Your task to perform on an android device: choose inbox layout in the gmail app Image 0: 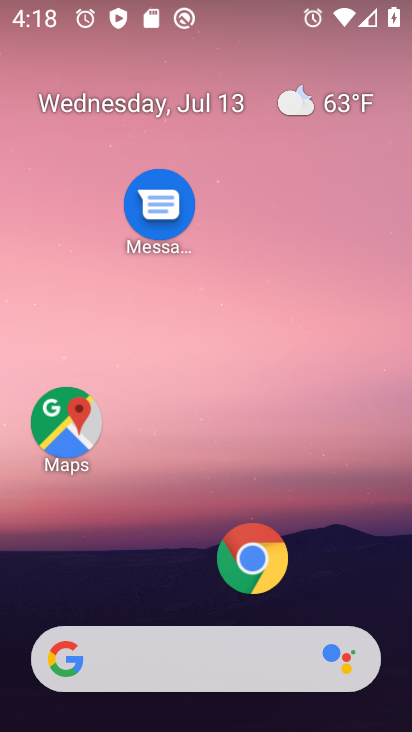
Step 0: drag from (207, 546) to (173, 324)
Your task to perform on an android device: choose inbox layout in the gmail app Image 1: 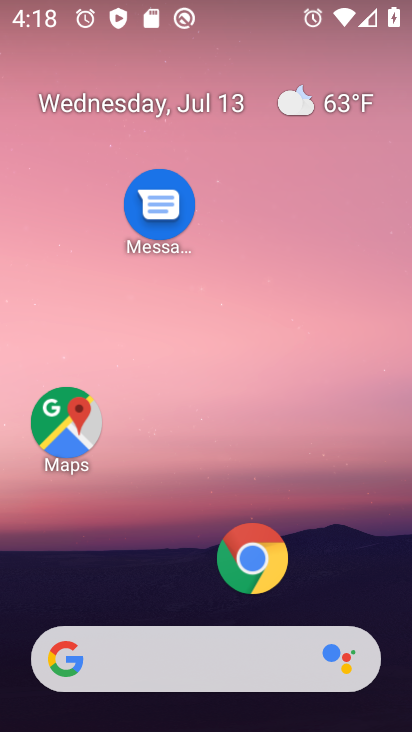
Step 1: drag from (198, 631) to (172, 163)
Your task to perform on an android device: choose inbox layout in the gmail app Image 2: 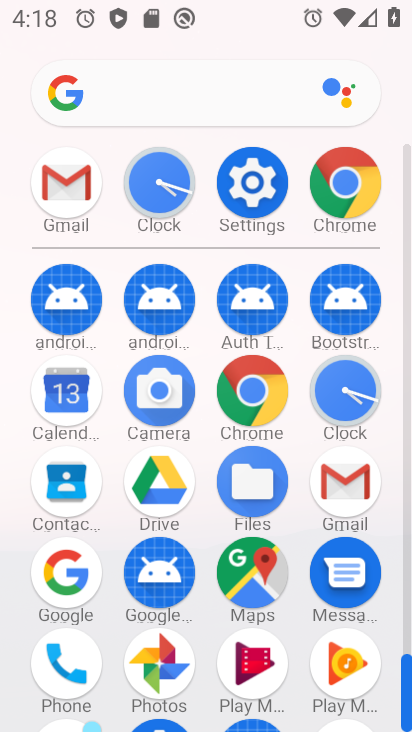
Step 2: click (357, 493)
Your task to perform on an android device: choose inbox layout in the gmail app Image 3: 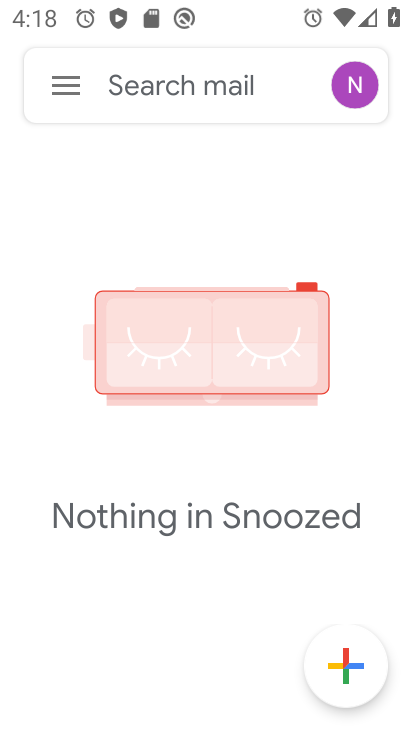
Step 3: click (61, 96)
Your task to perform on an android device: choose inbox layout in the gmail app Image 4: 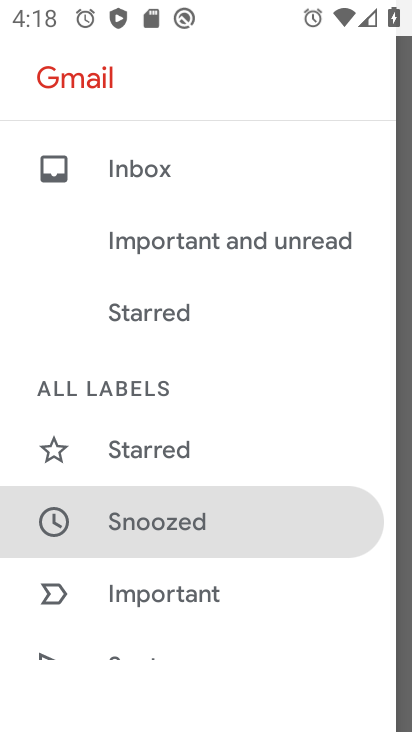
Step 4: drag from (162, 634) to (191, 326)
Your task to perform on an android device: choose inbox layout in the gmail app Image 5: 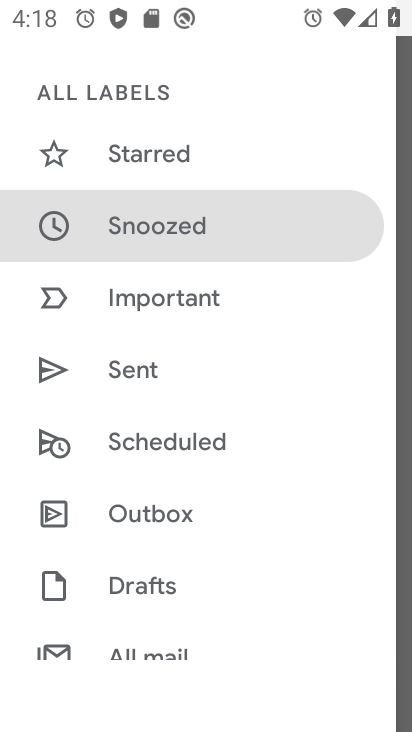
Step 5: drag from (160, 649) to (166, 285)
Your task to perform on an android device: choose inbox layout in the gmail app Image 6: 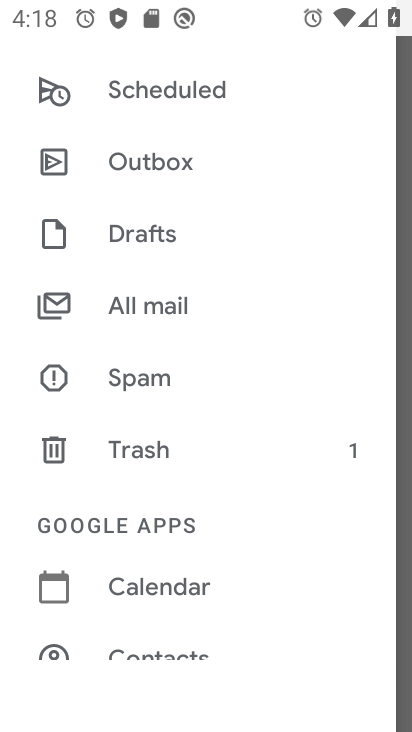
Step 6: drag from (184, 640) to (179, 238)
Your task to perform on an android device: choose inbox layout in the gmail app Image 7: 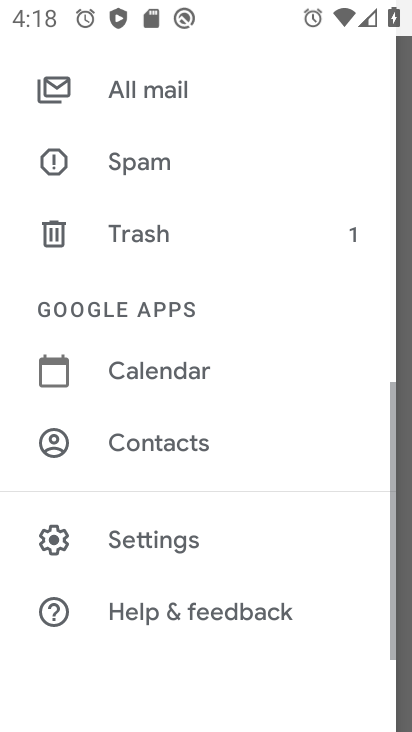
Step 7: click (169, 530)
Your task to perform on an android device: choose inbox layout in the gmail app Image 8: 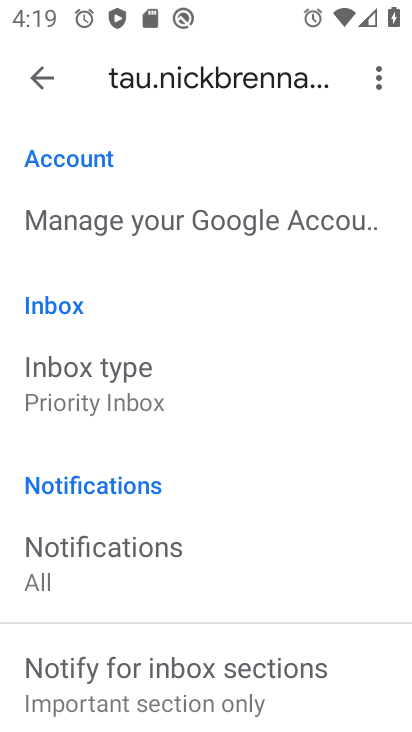
Step 8: click (102, 385)
Your task to perform on an android device: choose inbox layout in the gmail app Image 9: 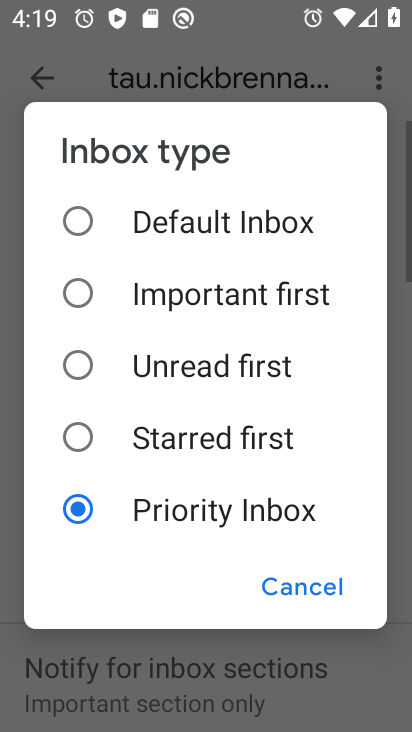
Step 9: click (151, 298)
Your task to perform on an android device: choose inbox layout in the gmail app Image 10: 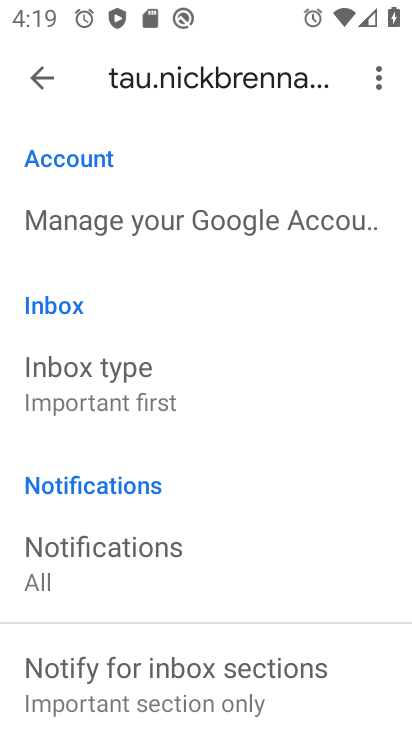
Step 10: task complete